Your task to perform on an android device: turn pop-ups on in chrome Image 0: 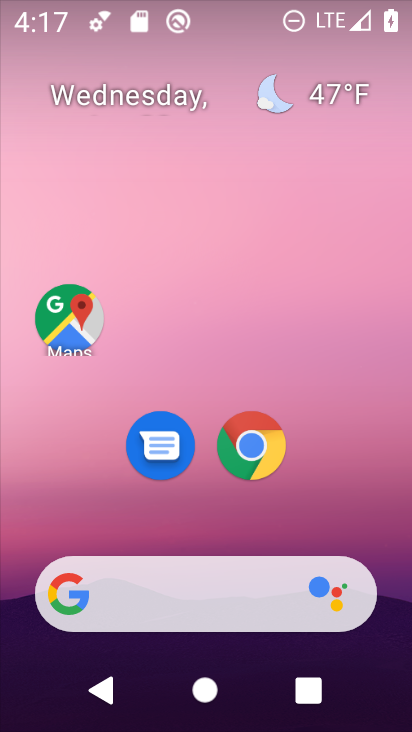
Step 0: click (250, 448)
Your task to perform on an android device: turn pop-ups on in chrome Image 1: 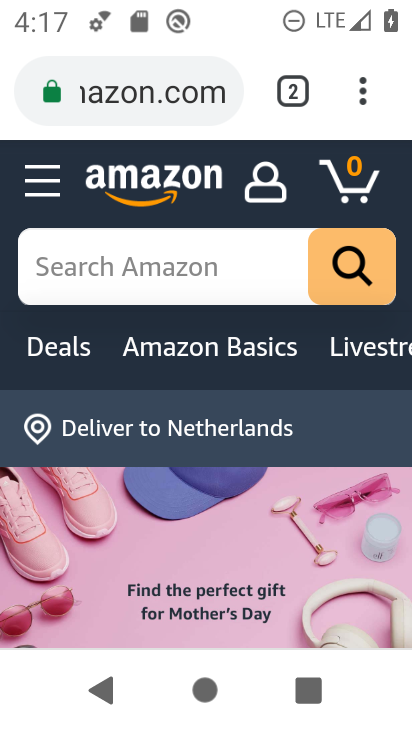
Step 1: click (365, 91)
Your task to perform on an android device: turn pop-ups on in chrome Image 2: 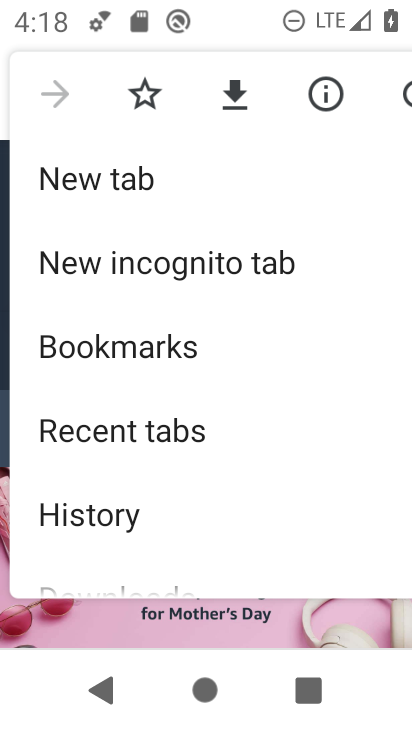
Step 2: drag from (201, 545) to (228, 388)
Your task to perform on an android device: turn pop-ups on in chrome Image 3: 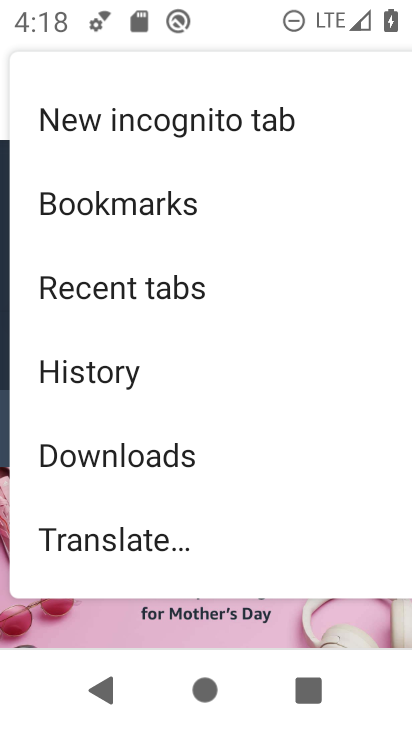
Step 3: drag from (231, 485) to (276, 355)
Your task to perform on an android device: turn pop-ups on in chrome Image 4: 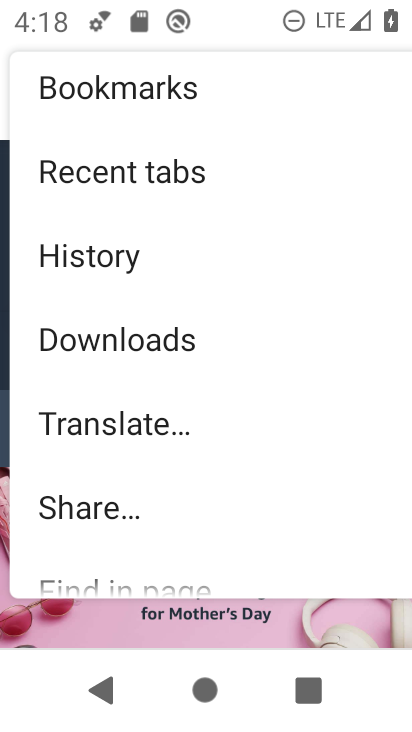
Step 4: drag from (222, 503) to (258, 387)
Your task to perform on an android device: turn pop-ups on in chrome Image 5: 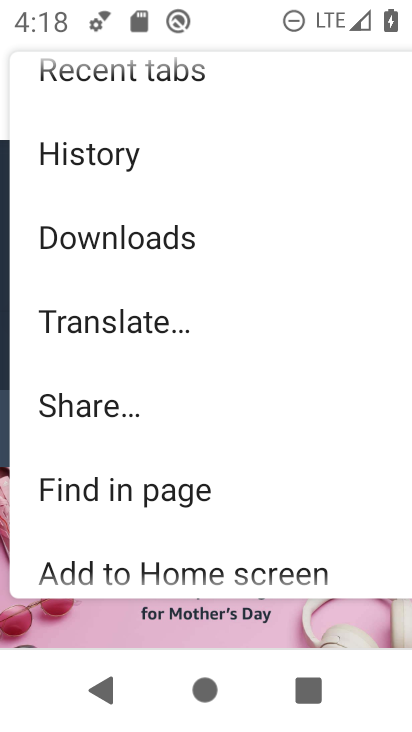
Step 5: drag from (258, 536) to (358, 403)
Your task to perform on an android device: turn pop-ups on in chrome Image 6: 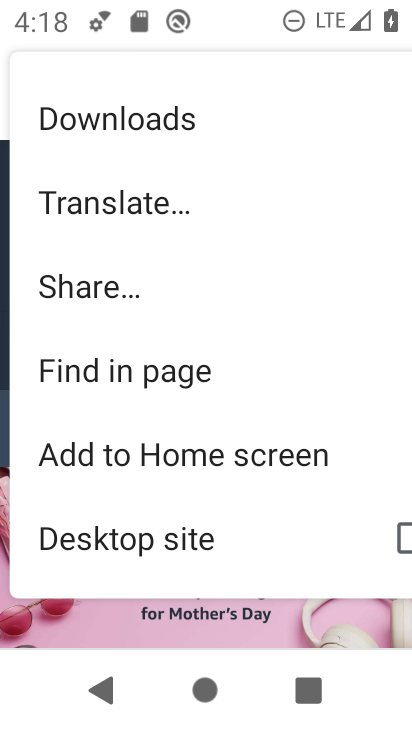
Step 6: drag from (253, 541) to (304, 378)
Your task to perform on an android device: turn pop-ups on in chrome Image 7: 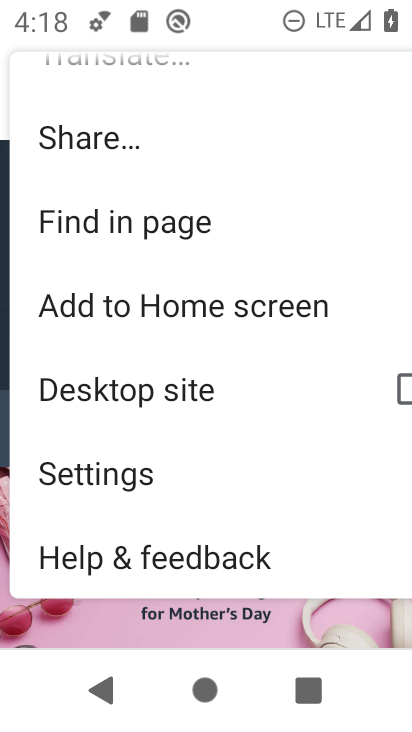
Step 7: click (97, 471)
Your task to perform on an android device: turn pop-ups on in chrome Image 8: 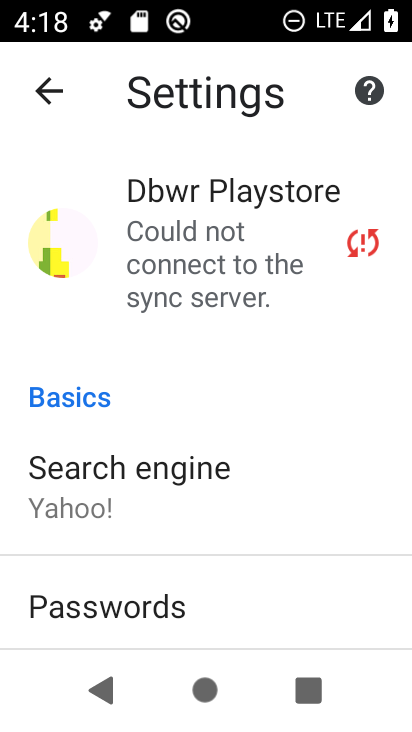
Step 8: drag from (219, 598) to (222, 408)
Your task to perform on an android device: turn pop-ups on in chrome Image 9: 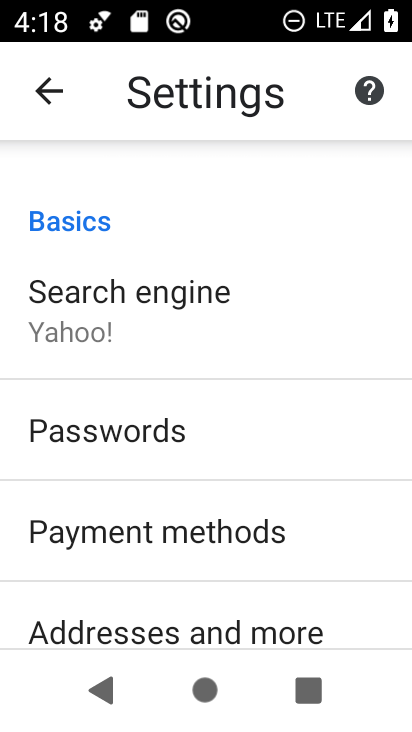
Step 9: drag from (213, 553) to (239, 416)
Your task to perform on an android device: turn pop-ups on in chrome Image 10: 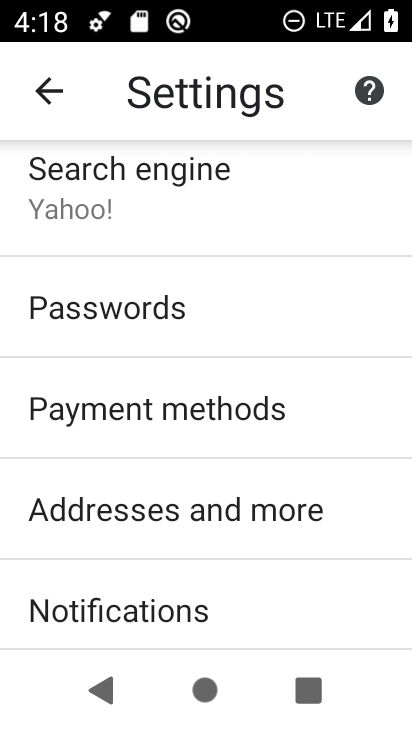
Step 10: drag from (220, 588) to (241, 447)
Your task to perform on an android device: turn pop-ups on in chrome Image 11: 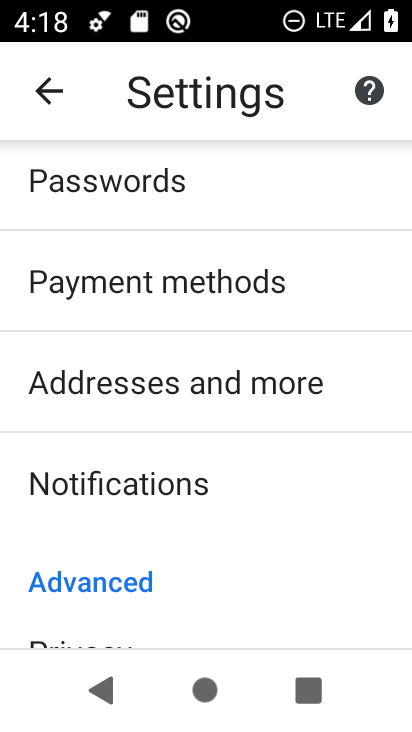
Step 11: drag from (209, 565) to (238, 420)
Your task to perform on an android device: turn pop-ups on in chrome Image 12: 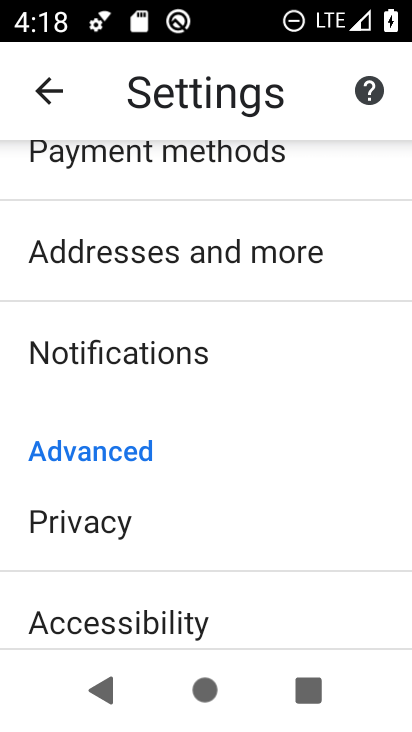
Step 12: drag from (208, 521) to (274, 383)
Your task to perform on an android device: turn pop-ups on in chrome Image 13: 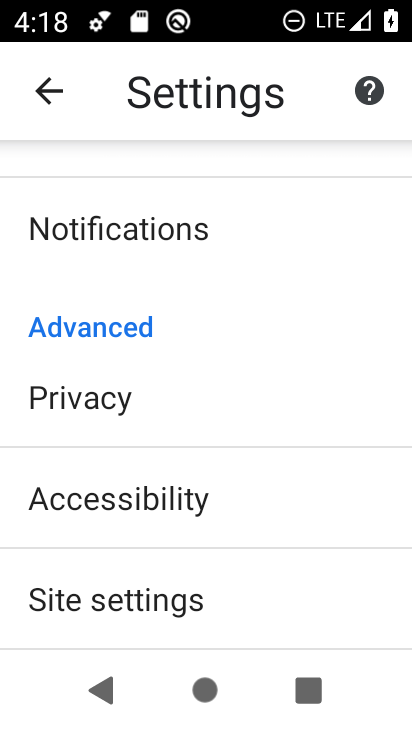
Step 13: click (170, 593)
Your task to perform on an android device: turn pop-ups on in chrome Image 14: 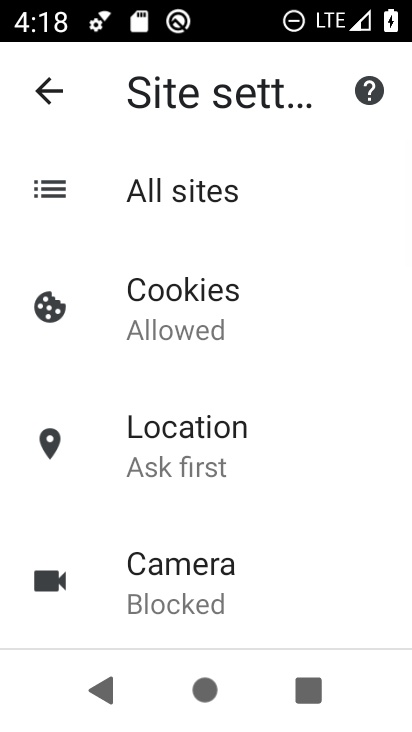
Step 14: drag from (213, 528) to (257, 379)
Your task to perform on an android device: turn pop-ups on in chrome Image 15: 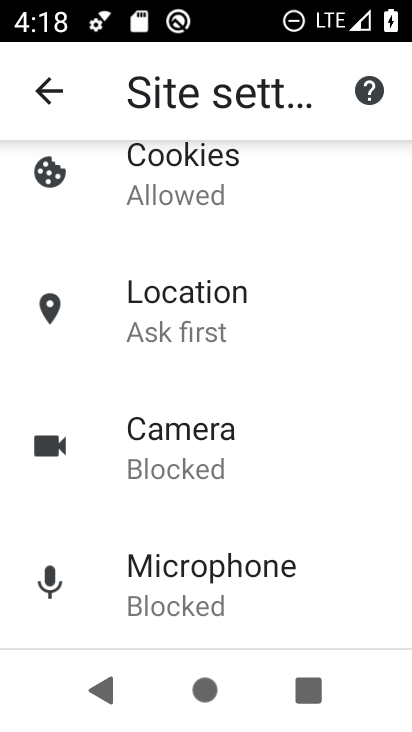
Step 15: drag from (222, 511) to (257, 353)
Your task to perform on an android device: turn pop-ups on in chrome Image 16: 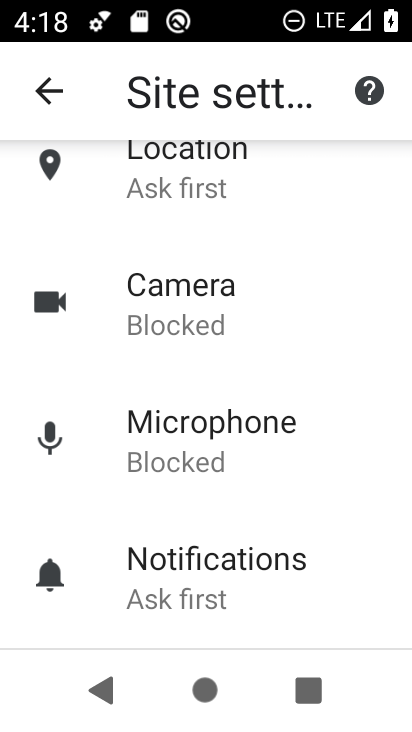
Step 16: drag from (200, 507) to (262, 364)
Your task to perform on an android device: turn pop-ups on in chrome Image 17: 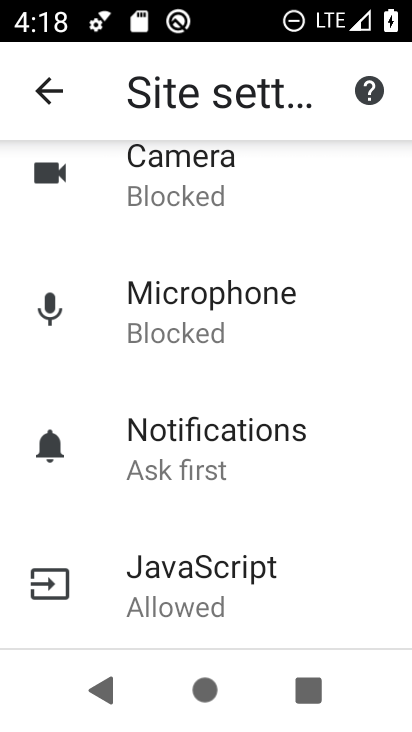
Step 17: drag from (190, 537) to (259, 395)
Your task to perform on an android device: turn pop-ups on in chrome Image 18: 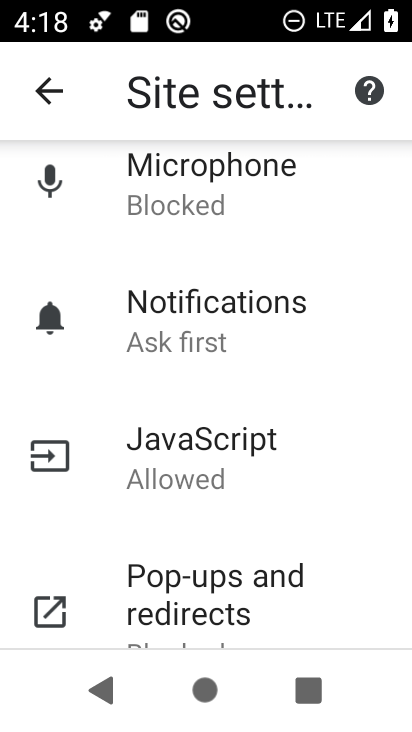
Step 18: drag from (211, 527) to (281, 395)
Your task to perform on an android device: turn pop-ups on in chrome Image 19: 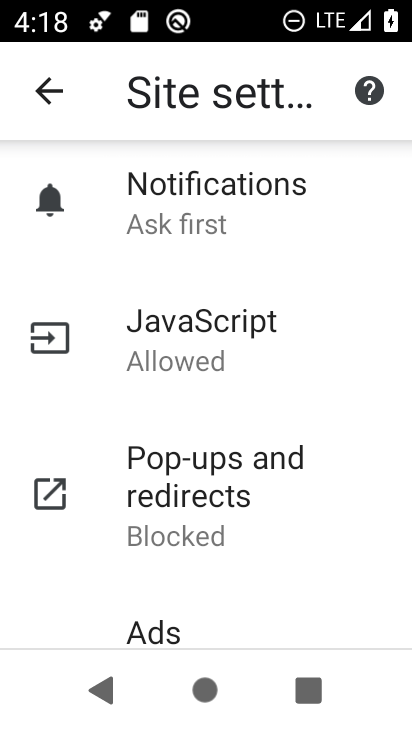
Step 19: click (216, 465)
Your task to perform on an android device: turn pop-ups on in chrome Image 20: 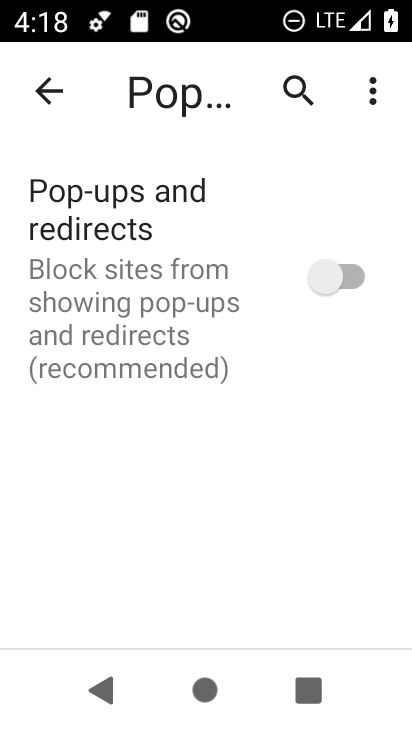
Step 20: click (333, 274)
Your task to perform on an android device: turn pop-ups on in chrome Image 21: 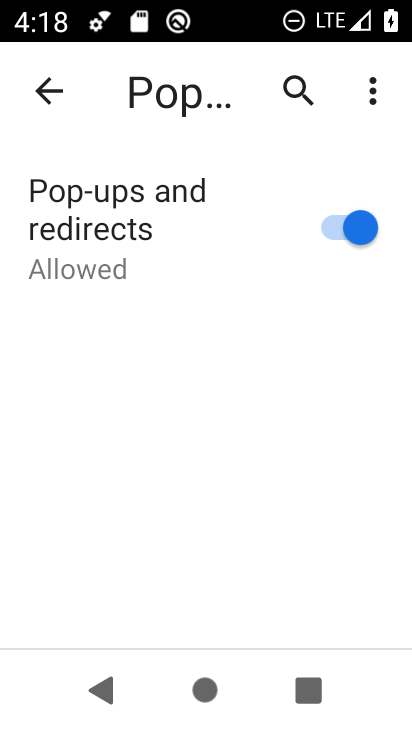
Step 21: task complete